Your task to perform on an android device: show emergency info Image 0: 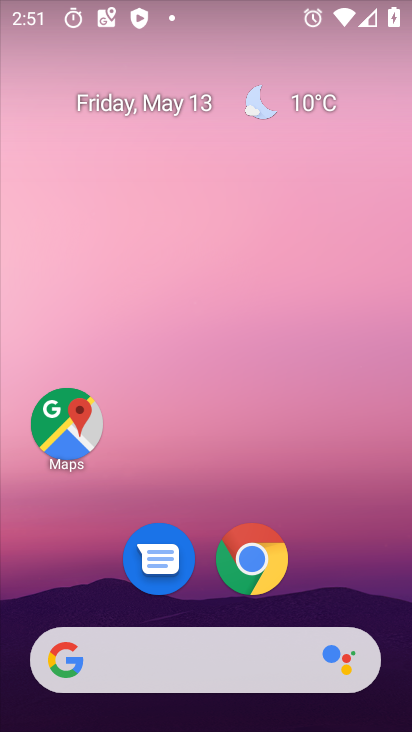
Step 0: drag from (202, 595) to (235, 160)
Your task to perform on an android device: show emergency info Image 1: 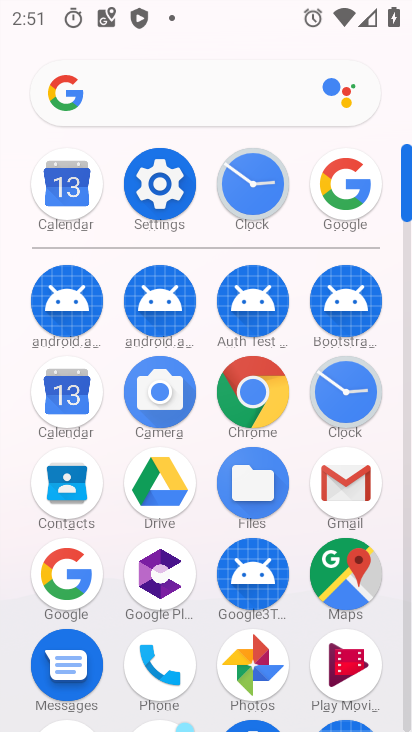
Step 1: click (172, 175)
Your task to perform on an android device: show emergency info Image 2: 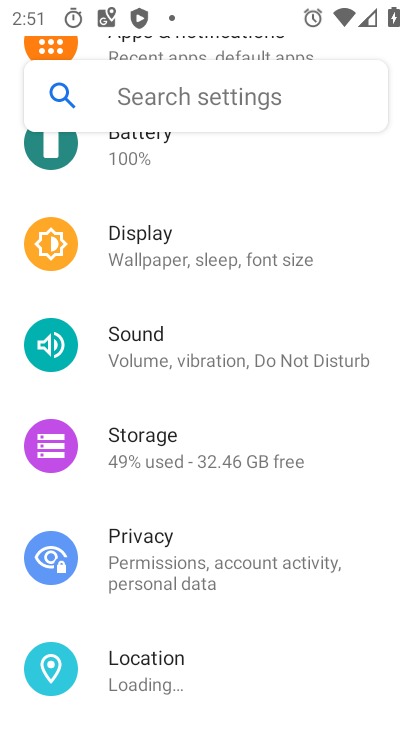
Step 2: drag from (191, 641) to (249, 238)
Your task to perform on an android device: show emergency info Image 3: 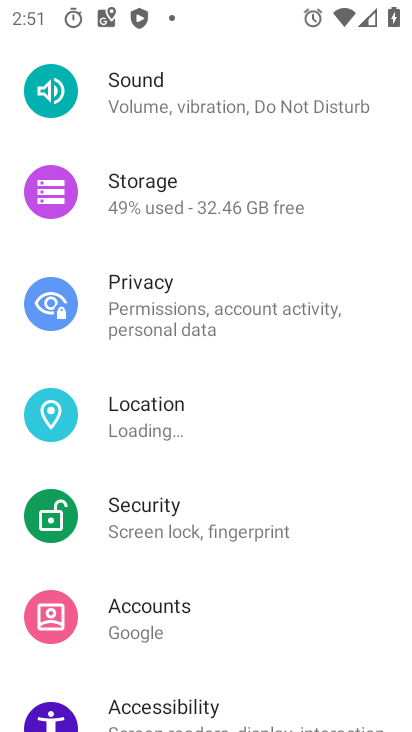
Step 3: drag from (254, 580) to (286, 299)
Your task to perform on an android device: show emergency info Image 4: 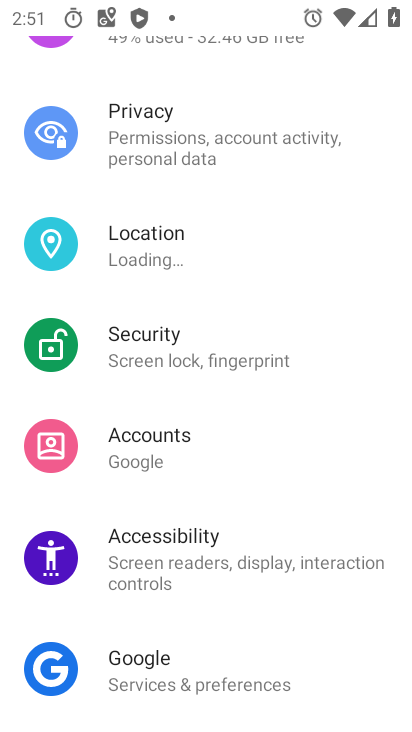
Step 4: drag from (263, 606) to (290, 293)
Your task to perform on an android device: show emergency info Image 5: 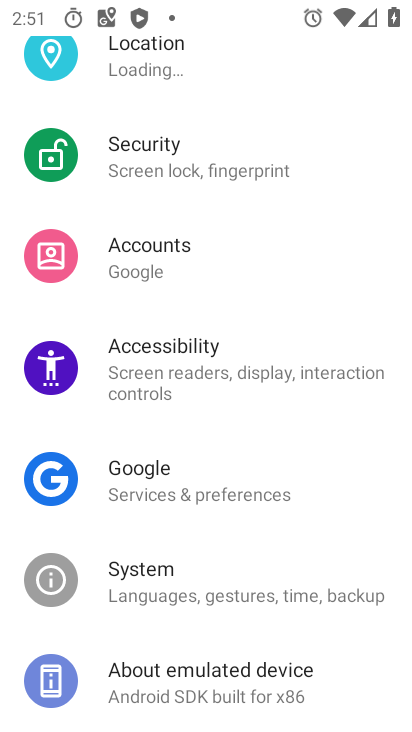
Step 5: drag from (234, 662) to (277, 367)
Your task to perform on an android device: show emergency info Image 6: 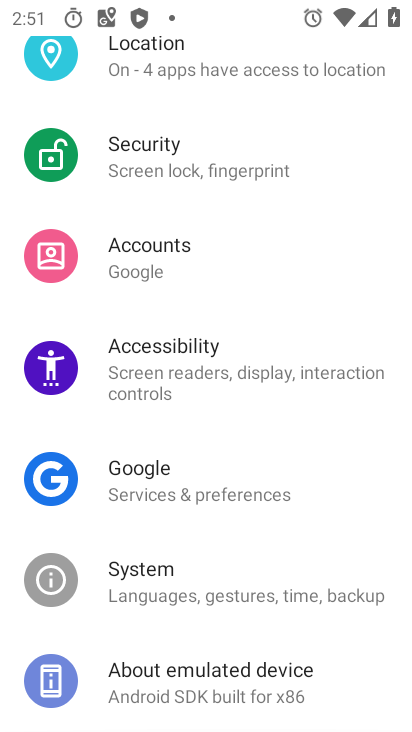
Step 6: click (198, 680)
Your task to perform on an android device: show emergency info Image 7: 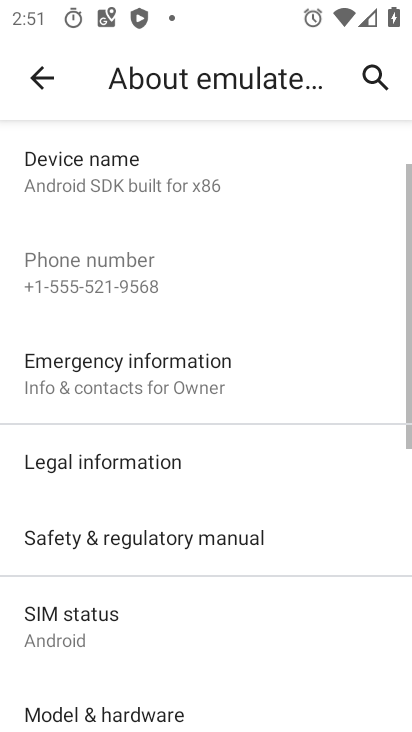
Step 7: click (136, 385)
Your task to perform on an android device: show emergency info Image 8: 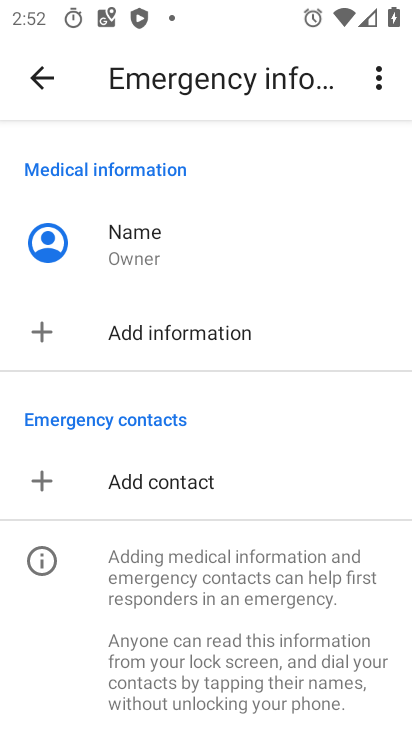
Step 8: task complete